Your task to perform on an android device: turn off javascript in the chrome app Image 0: 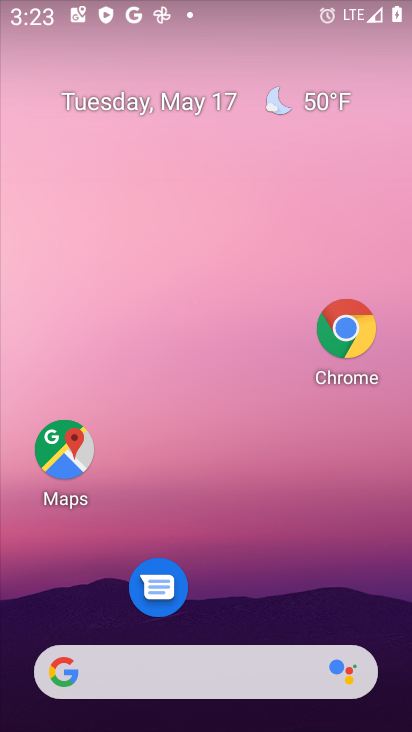
Step 0: click (277, 614)
Your task to perform on an android device: turn off javascript in the chrome app Image 1: 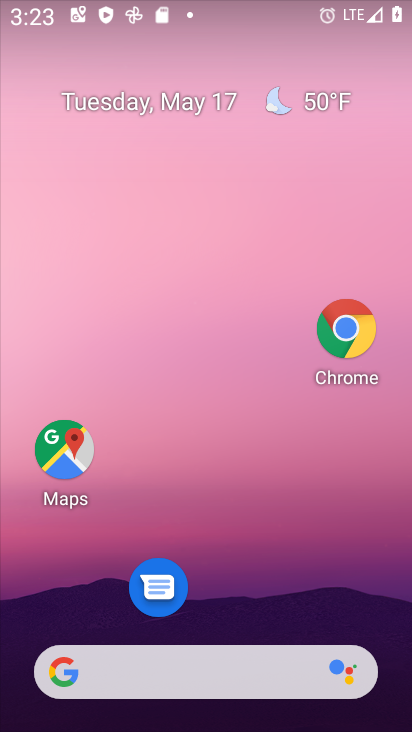
Step 1: click (363, 371)
Your task to perform on an android device: turn off javascript in the chrome app Image 2: 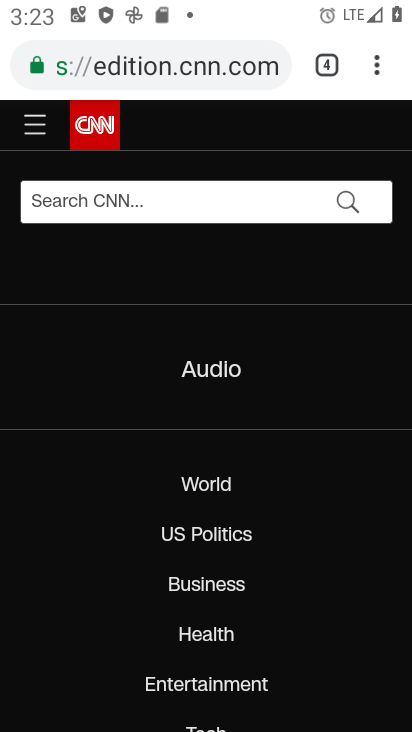
Step 2: click (387, 62)
Your task to perform on an android device: turn off javascript in the chrome app Image 3: 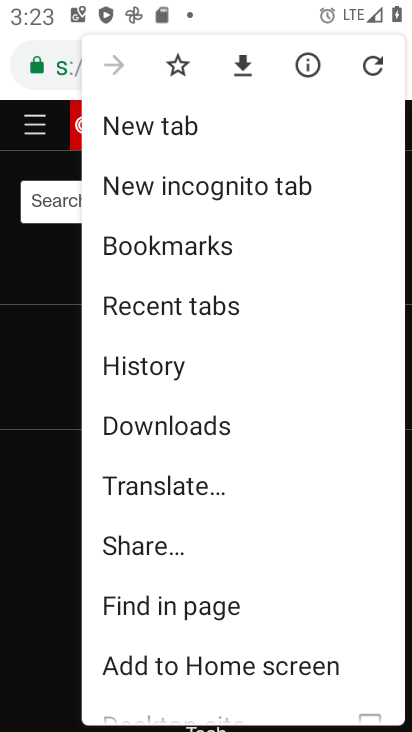
Step 3: drag from (154, 666) to (243, 277)
Your task to perform on an android device: turn off javascript in the chrome app Image 4: 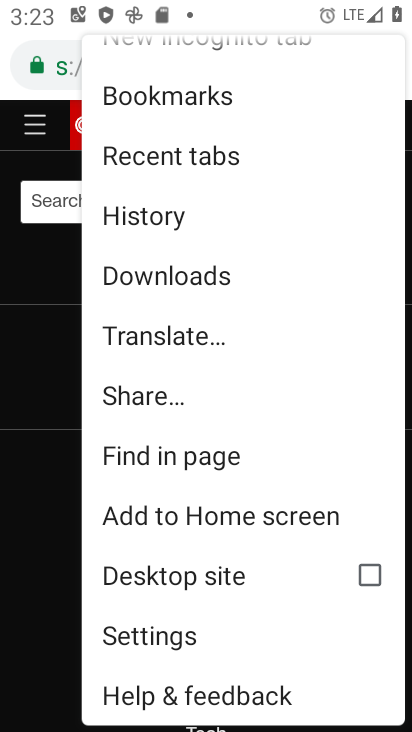
Step 4: click (180, 657)
Your task to perform on an android device: turn off javascript in the chrome app Image 5: 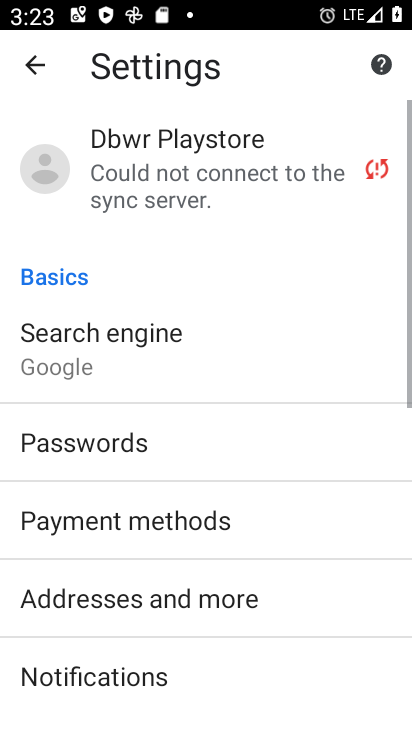
Step 5: drag from (183, 643) to (236, 161)
Your task to perform on an android device: turn off javascript in the chrome app Image 6: 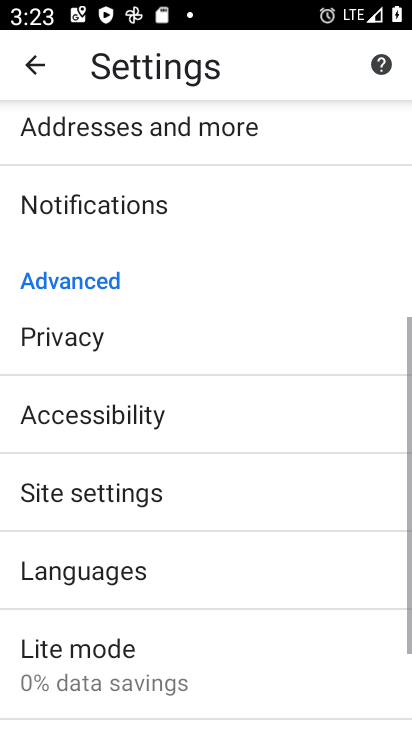
Step 6: click (189, 476)
Your task to perform on an android device: turn off javascript in the chrome app Image 7: 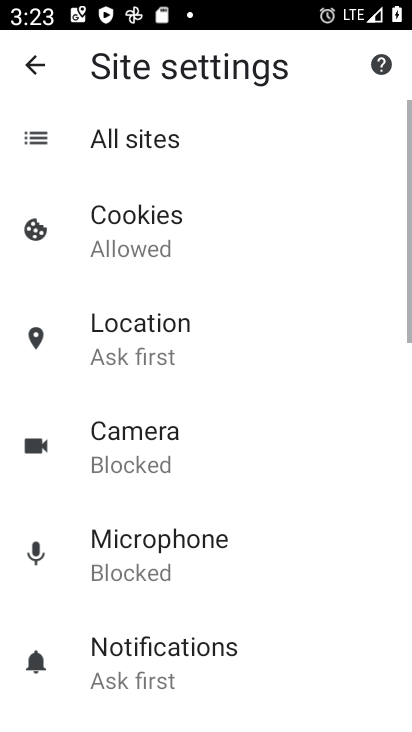
Step 7: drag from (214, 607) to (269, 324)
Your task to perform on an android device: turn off javascript in the chrome app Image 8: 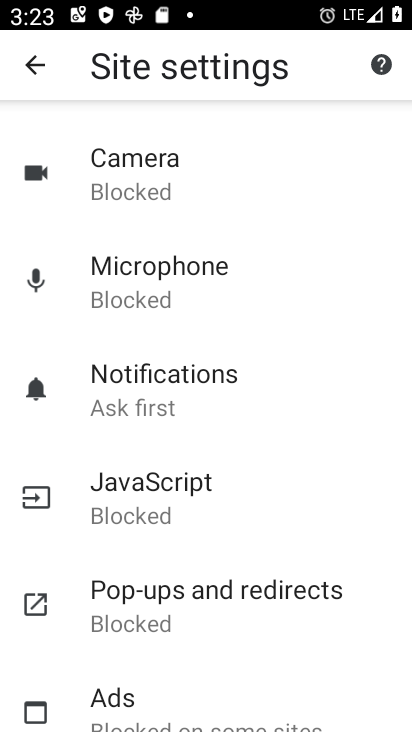
Step 8: click (228, 509)
Your task to perform on an android device: turn off javascript in the chrome app Image 9: 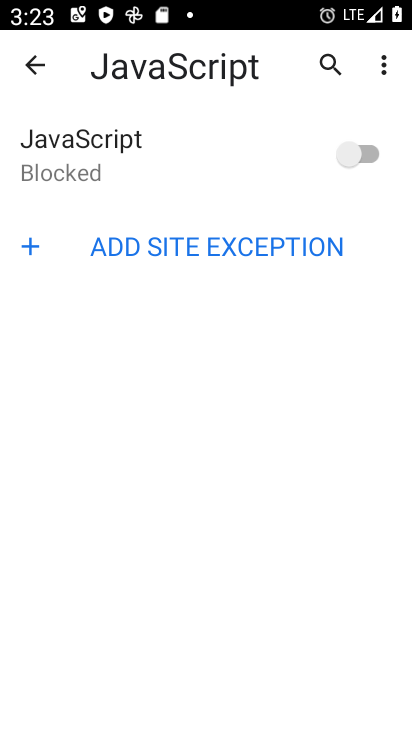
Step 9: task complete